Your task to perform on an android device: Open network settings Image 0: 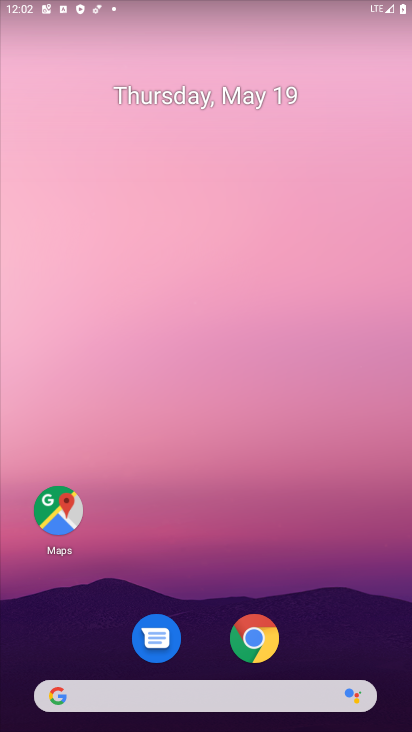
Step 0: drag from (361, 629) to (271, 141)
Your task to perform on an android device: Open network settings Image 1: 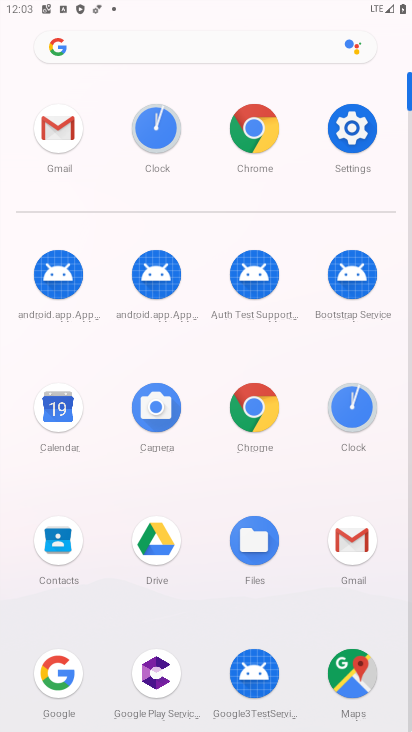
Step 1: click (352, 134)
Your task to perform on an android device: Open network settings Image 2: 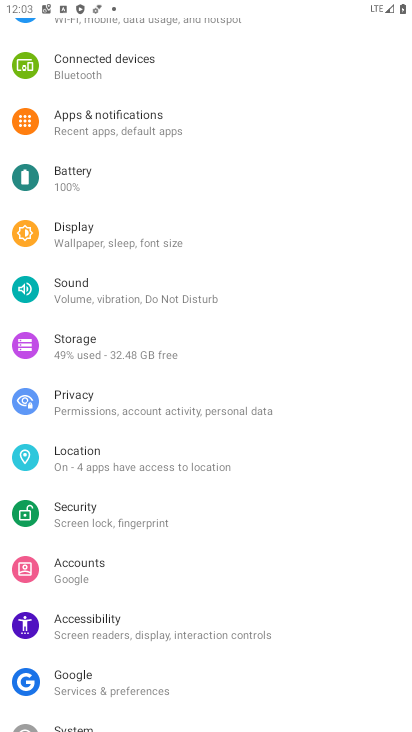
Step 2: drag from (226, 90) to (100, 715)
Your task to perform on an android device: Open network settings Image 3: 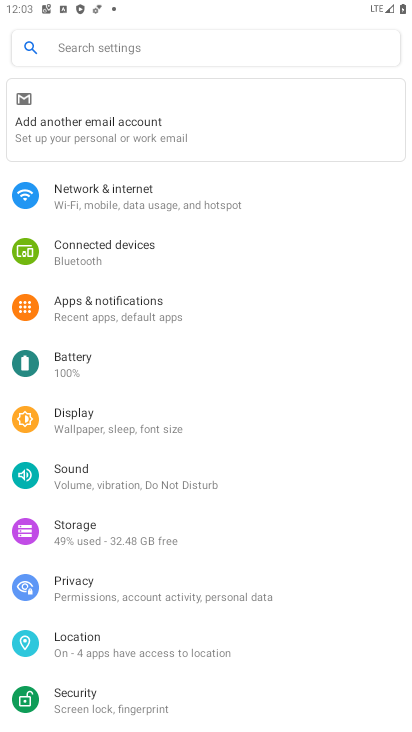
Step 3: click (183, 200)
Your task to perform on an android device: Open network settings Image 4: 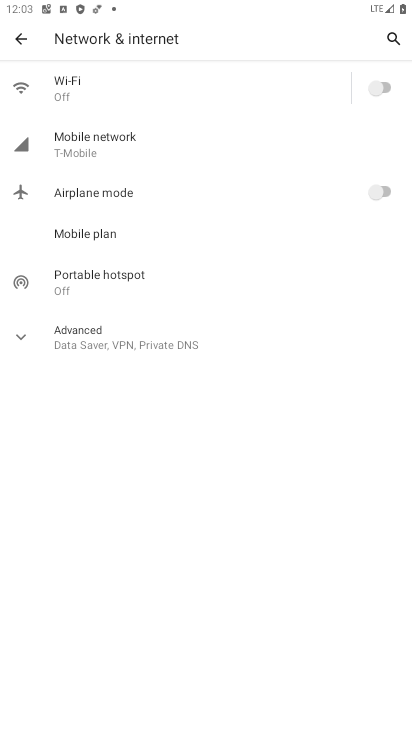
Step 4: task complete